Your task to perform on an android device: Open Google Chrome and click the shortcut for Amazon.com Image 0: 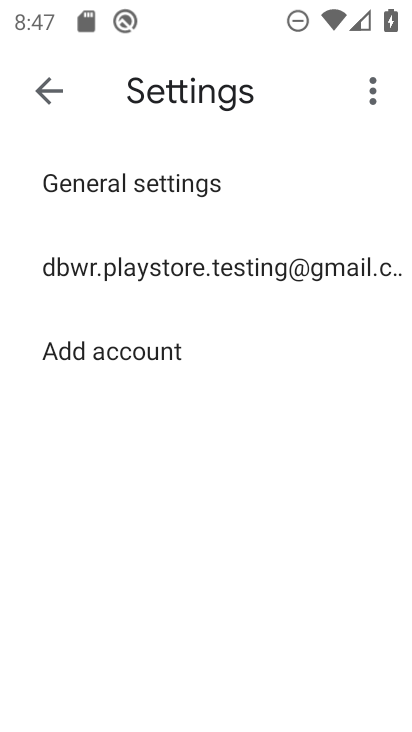
Step 0: press back button
Your task to perform on an android device: Open Google Chrome and click the shortcut for Amazon.com Image 1: 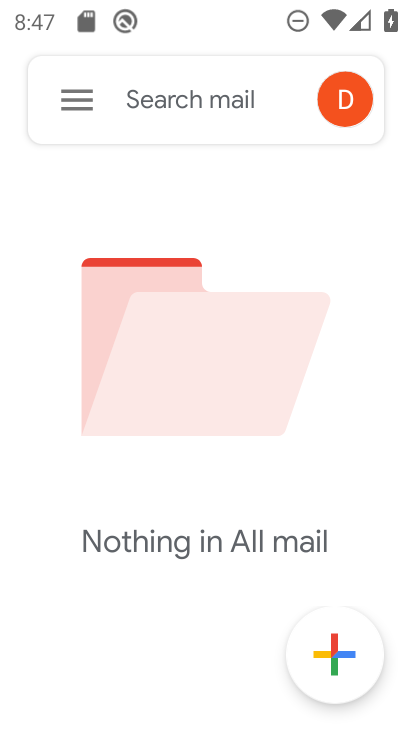
Step 1: press back button
Your task to perform on an android device: Open Google Chrome and click the shortcut for Amazon.com Image 2: 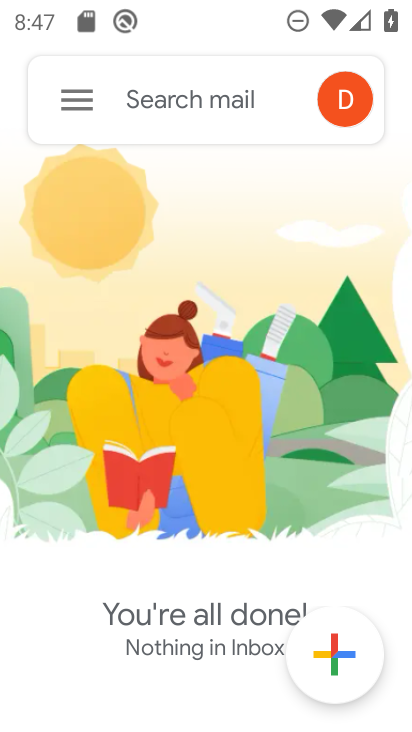
Step 2: press back button
Your task to perform on an android device: Open Google Chrome and click the shortcut for Amazon.com Image 3: 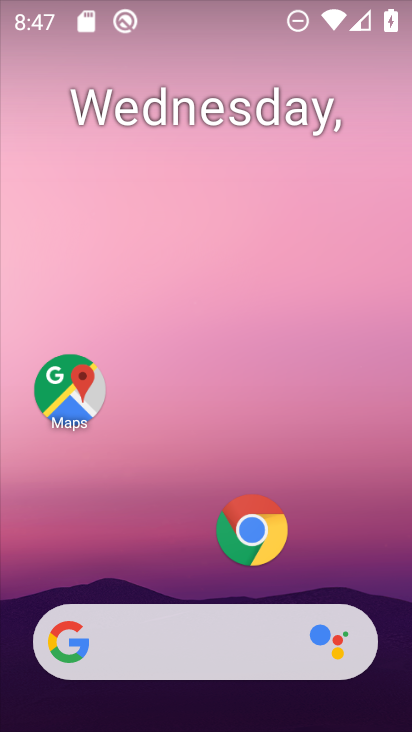
Step 3: click (262, 542)
Your task to perform on an android device: Open Google Chrome and click the shortcut for Amazon.com Image 4: 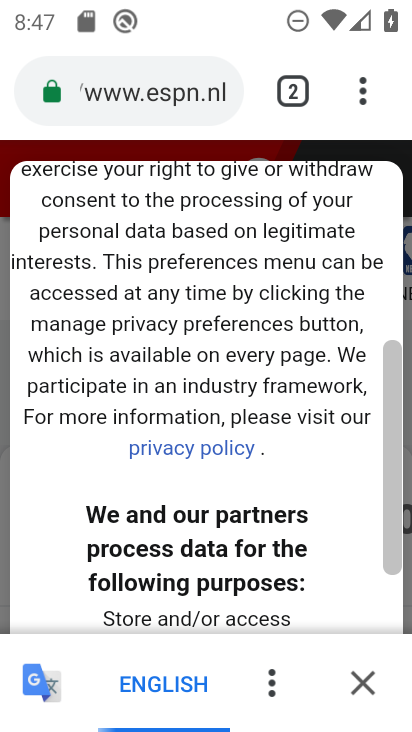
Step 4: click (289, 83)
Your task to perform on an android device: Open Google Chrome and click the shortcut for Amazon.com Image 5: 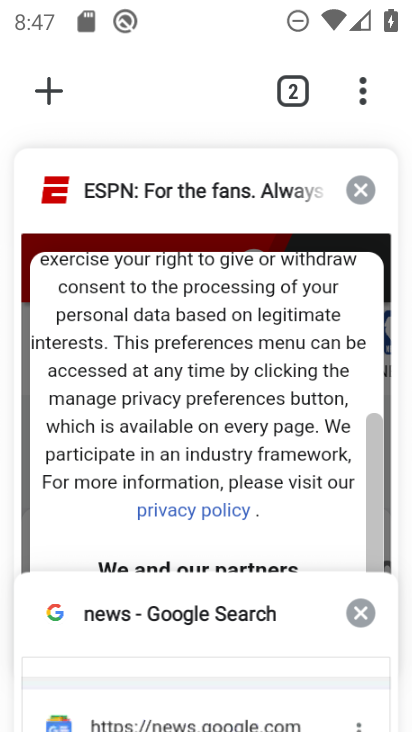
Step 5: click (48, 84)
Your task to perform on an android device: Open Google Chrome and click the shortcut for Amazon.com Image 6: 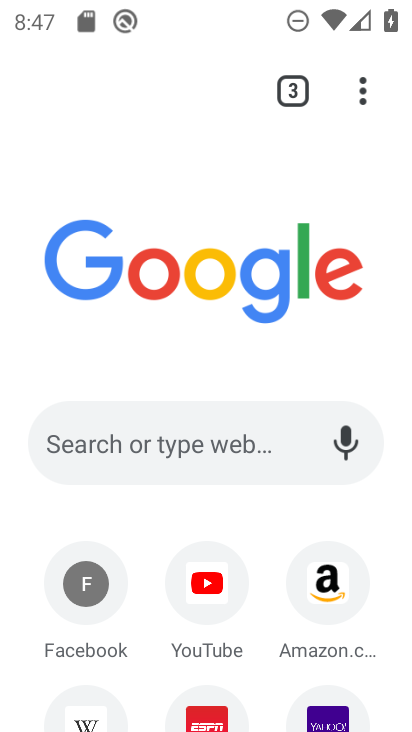
Step 6: click (333, 603)
Your task to perform on an android device: Open Google Chrome and click the shortcut for Amazon.com Image 7: 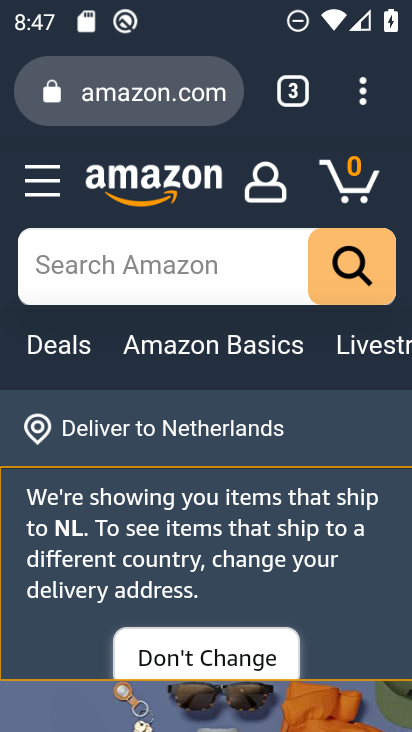
Step 7: task complete